Your task to perform on an android device: Open notification settings Image 0: 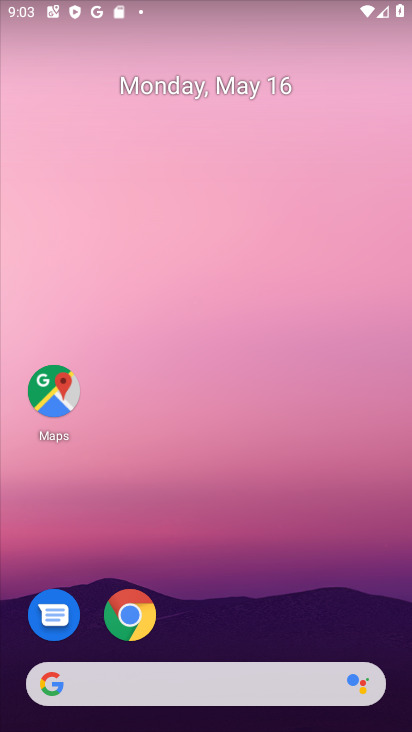
Step 0: drag from (74, 545) to (338, 193)
Your task to perform on an android device: Open notification settings Image 1: 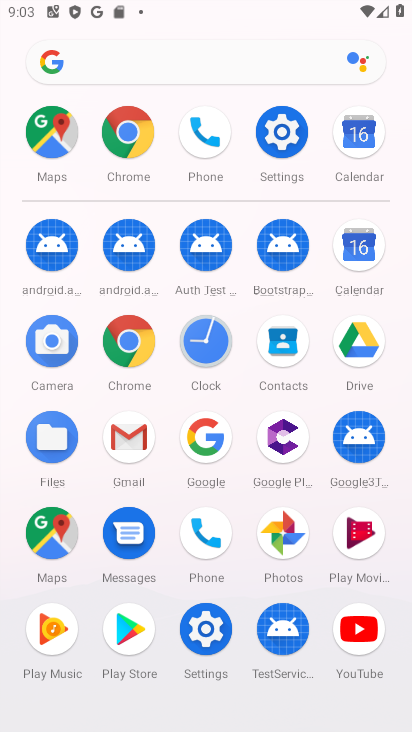
Step 1: click (279, 131)
Your task to perform on an android device: Open notification settings Image 2: 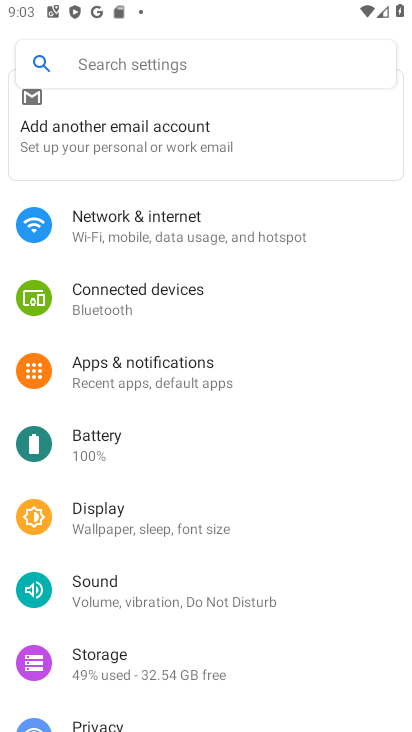
Step 2: click (164, 387)
Your task to perform on an android device: Open notification settings Image 3: 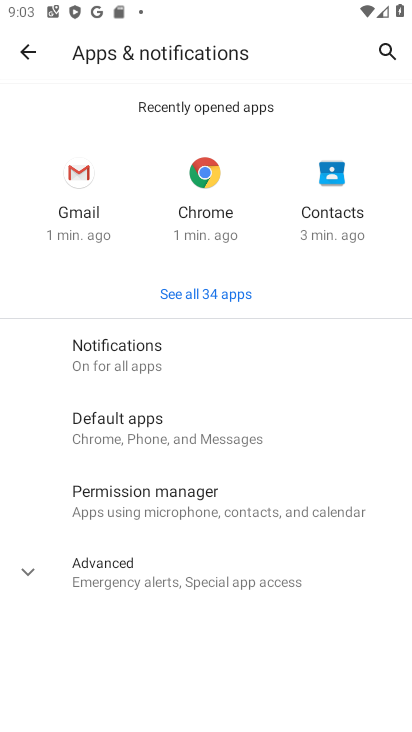
Step 3: click (173, 360)
Your task to perform on an android device: Open notification settings Image 4: 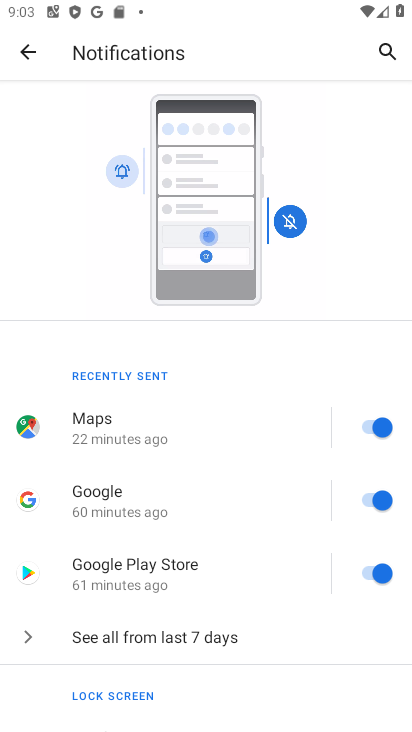
Step 4: task complete